Your task to perform on an android device: Open CNN.com Image 0: 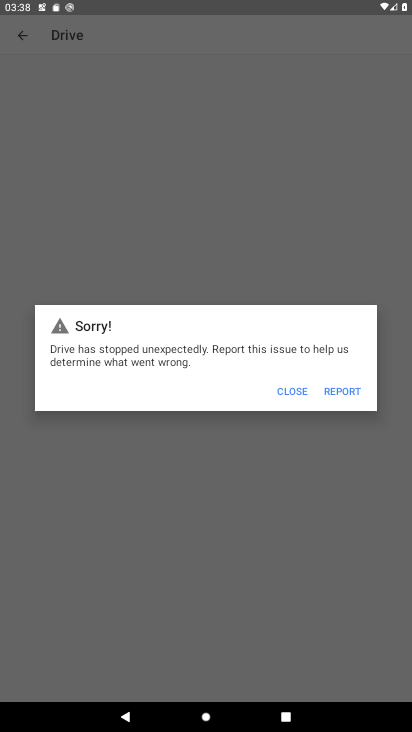
Step 0: drag from (213, 641) to (309, 52)
Your task to perform on an android device: Open CNN.com Image 1: 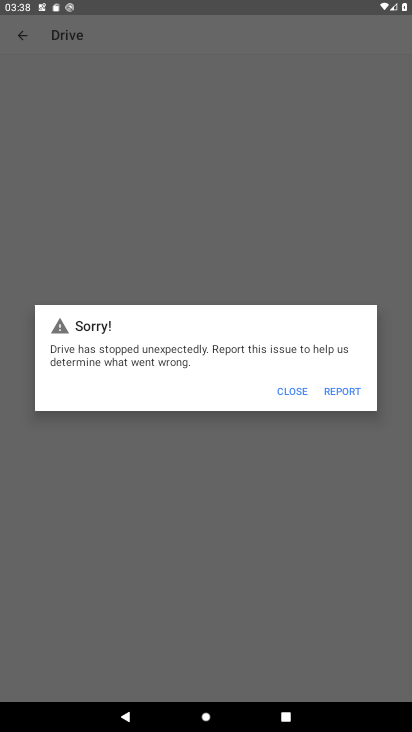
Step 1: press home button
Your task to perform on an android device: Open CNN.com Image 2: 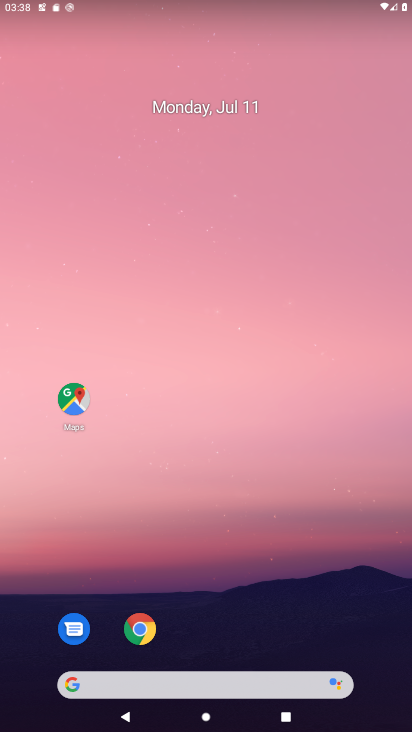
Step 2: click (141, 624)
Your task to perform on an android device: Open CNN.com Image 3: 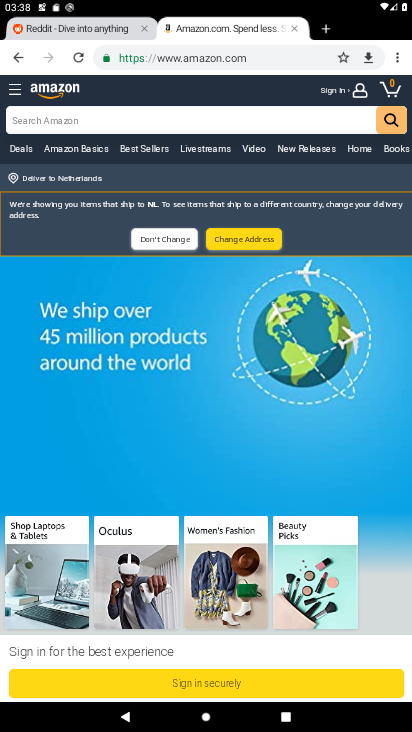
Step 3: click (322, 29)
Your task to perform on an android device: Open CNN.com Image 4: 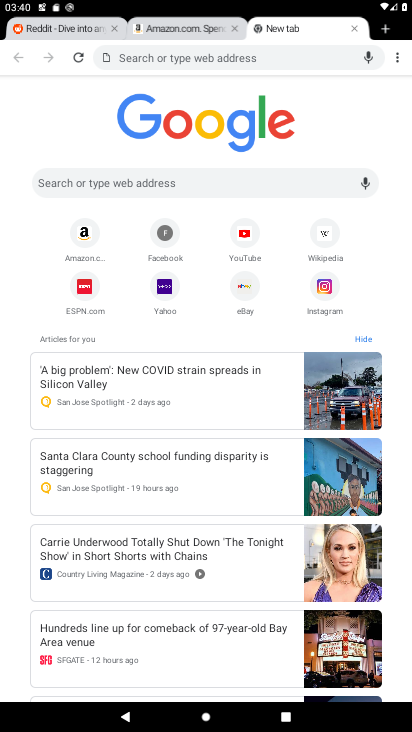
Step 4: click (139, 175)
Your task to perform on an android device: Open CNN.com Image 5: 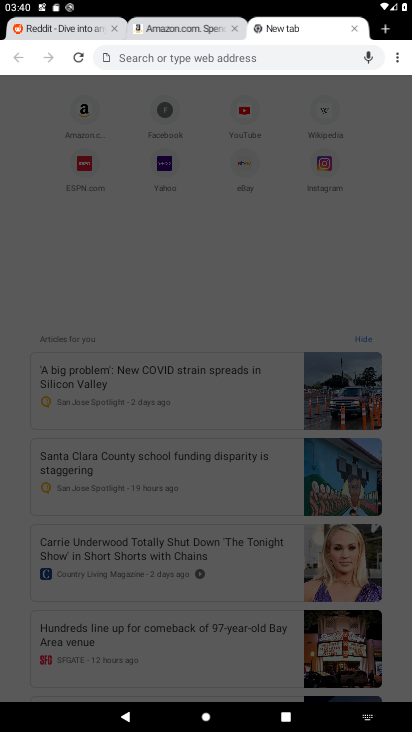
Step 5: type "cnn.com"
Your task to perform on an android device: Open CNN.com Image 6: 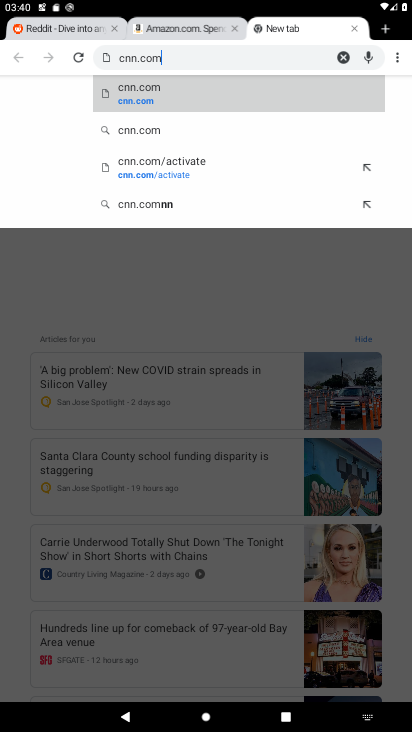
Step 6: click (157, 92)
Your task to perform on an android device: Open CNN.com Image 7: 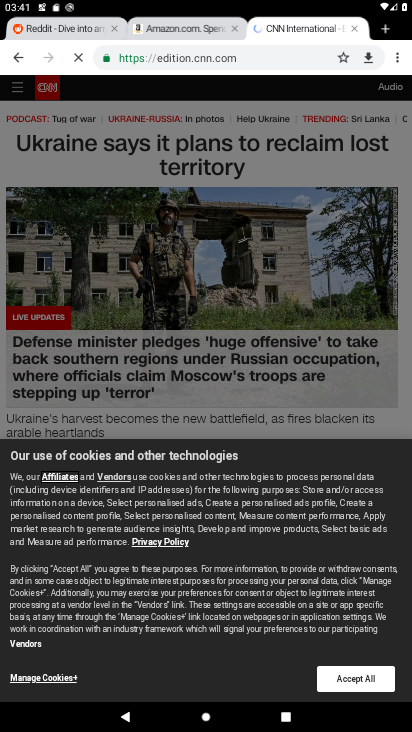
Step 7: task complete